Your task to perform on an android device: What's on my calendar today? Image 0: 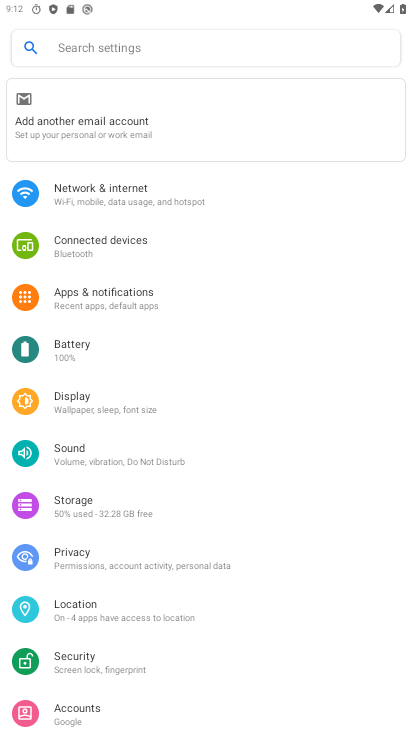
Step 0: drag from (198, 289) to (208, 208)
Your task to perform on an android device: What's on my calendar today? Image 1: 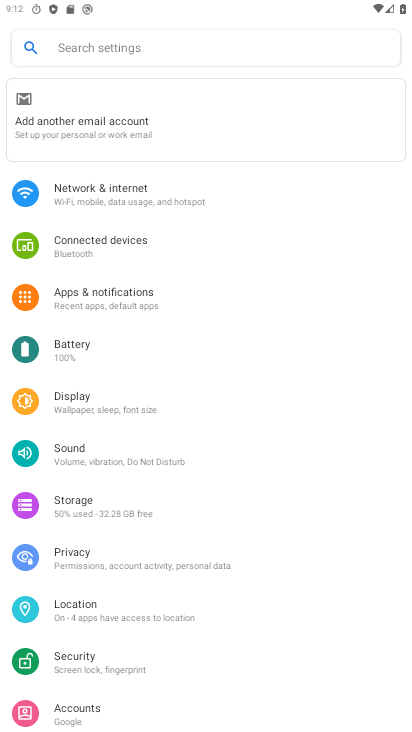
Step 1: press home button
Your task to perform on an android device: What's on my calendar today? Image 2: 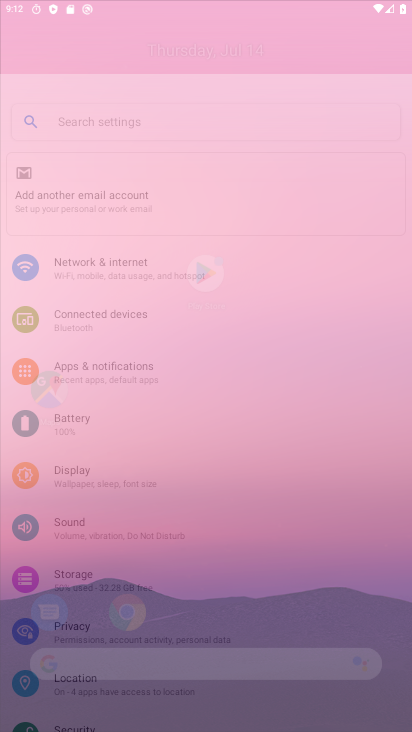
Step 2: drag from (186, 472) to (300, 74)
Your task to perform on an android device: What's on my calendar today? Image 3: 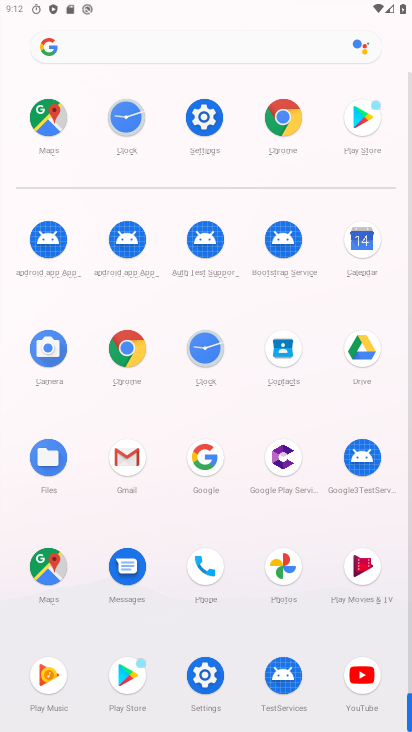
Step 3: click (368, 238)
Your task to perform on an android device: What's on my calendar today? Image 4: 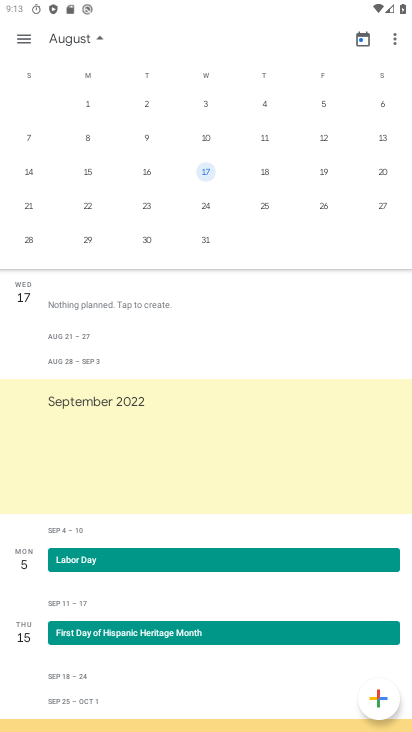
Step 4: drag from (201, 490) to (204, 154)
Your task to perform on an android device: What's on my calendar today? Image 5: 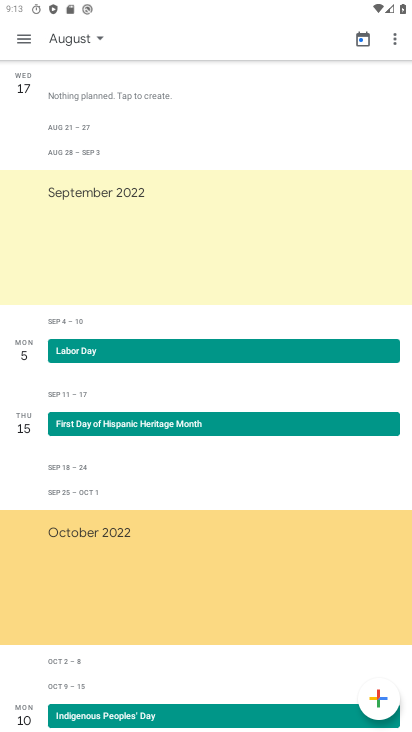
Step 5: click (97, 46)
Your task to perform on an android device: What's on my calendar today? Image 6: 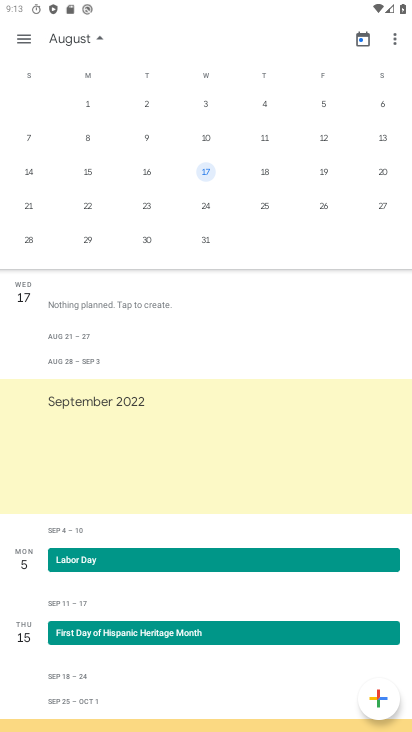
Step 6: click (366, 36)
Your task to perform on an android device: What's on my calendar today? Image 7: 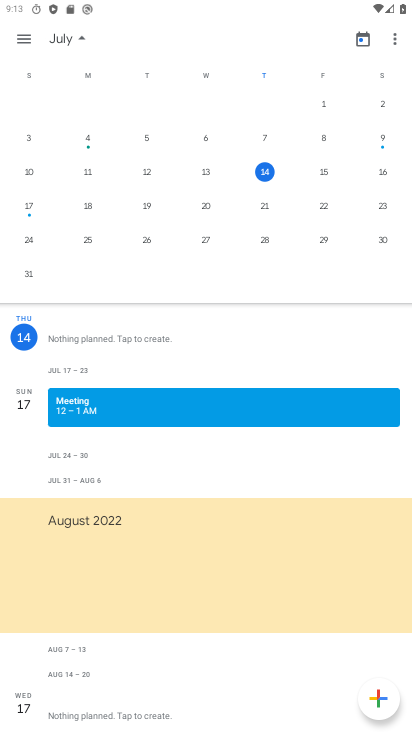
Step 7: click (264, 169)
Your task to perform on an android device: What's on my calendar today? Image 8: 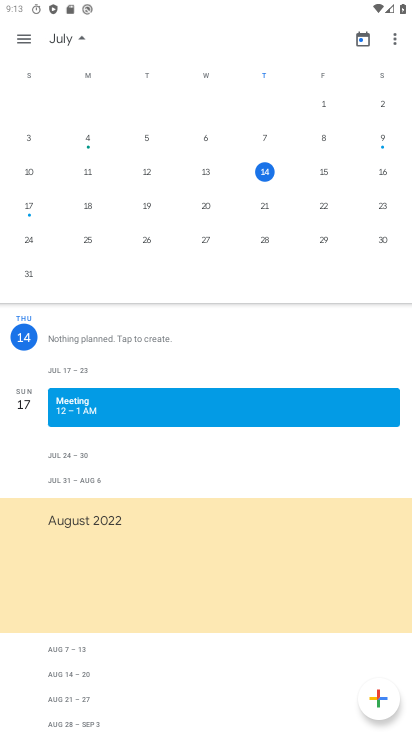
Step 8: click (264, 178)
Your task to perform on an android device: What's on my calendar today? Image 9: 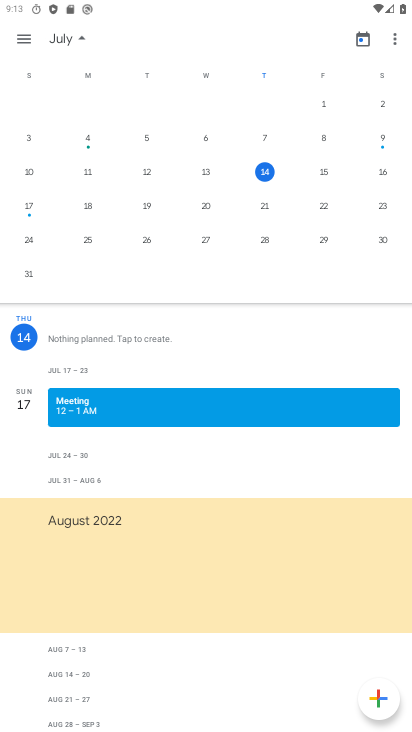
Step 9: task complete